Your task to perform on an android device: Open Google Image 0: 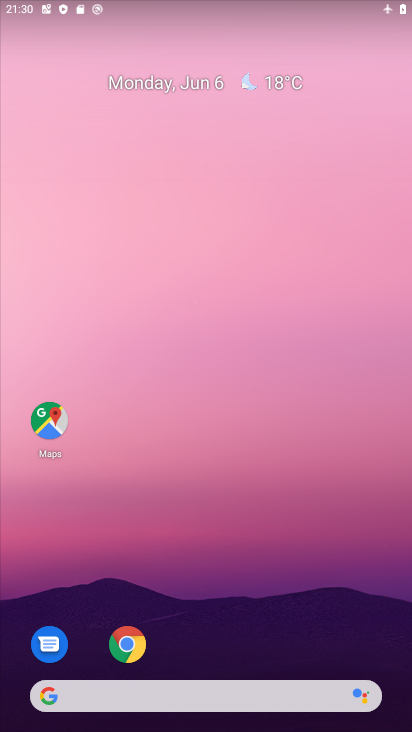
Step 0: drag from (243, 614) to (218, 170)
Your task to perform on an android device: Open Google Image 1: 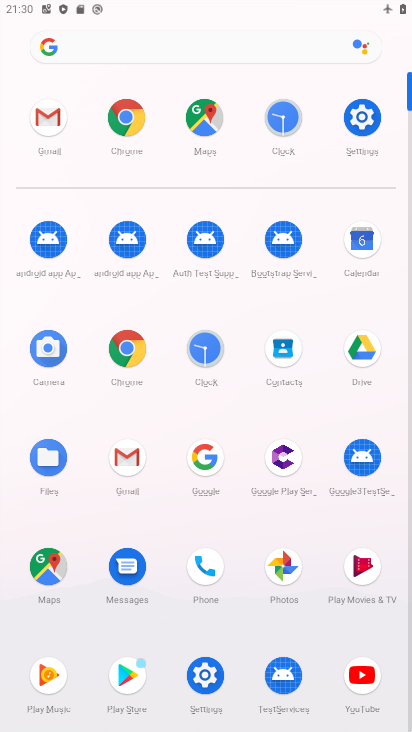
Step 1: click (200, 471)
Your task to perform on an android device: Open Google Image 2: 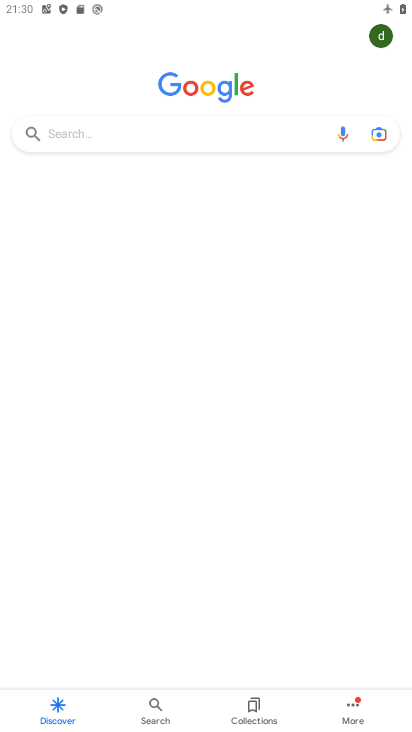
Step 2: task complete